Your task to perform on an android device: Open network settings Image 0: 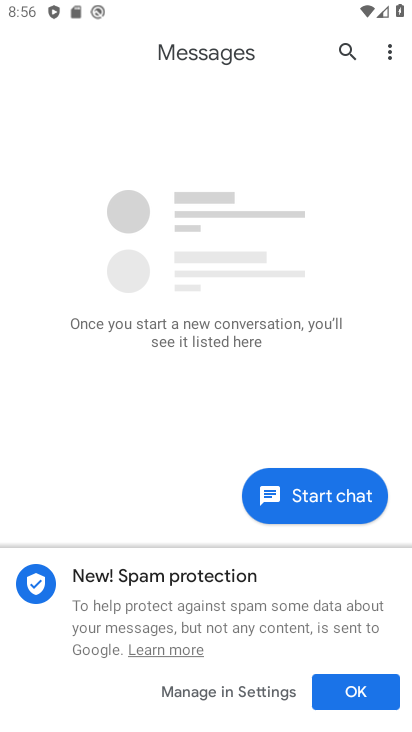
Step 0: press back button
Your task to perform on an android device: Open network settings Image 1: 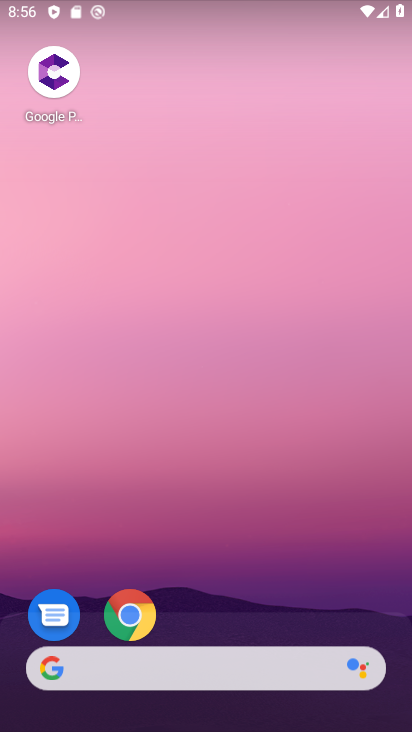
Step 1: drag from (237, 593) to (267, 64)
Your task to perform on an android device: Open network settings Image 2: 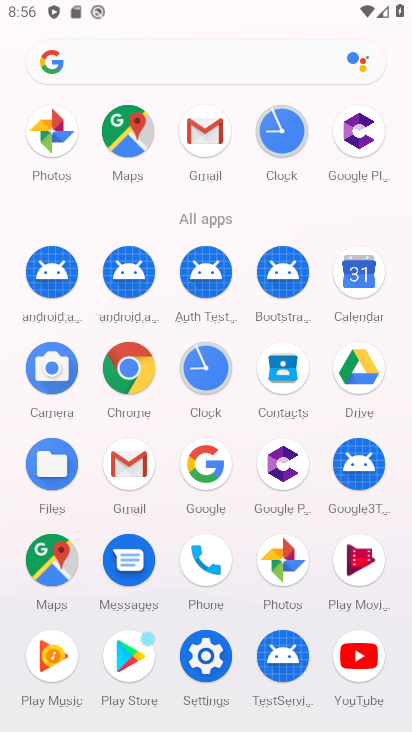
Step 2: click (184, 639)
Your task to perform on an android device: Open network settings Image 3: 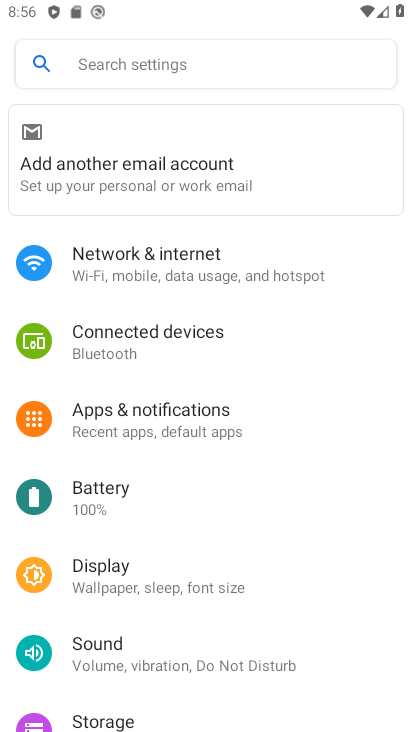
Step 3: click (168, 261)
Your task to perform on an android device: Open network settings Image 4: 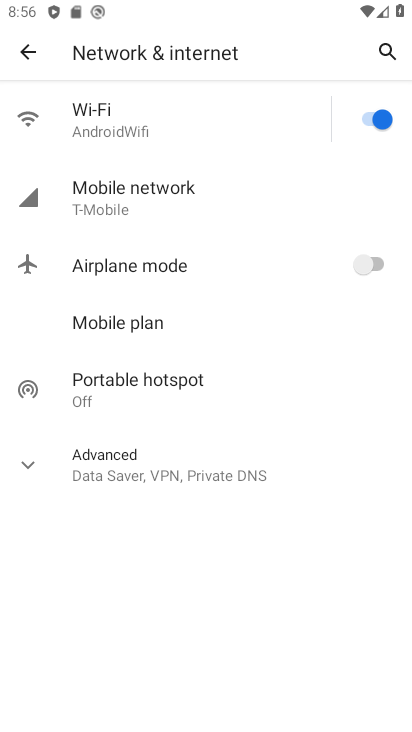
Step 4: task complete